Your task to perform on an android device: What's on the menu at Domino's? Image 0: 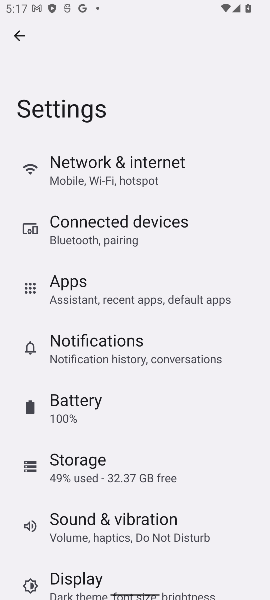
Step 0: press home button
Your task to perform on an android device: What's on the menu at Domino's? Image 1: 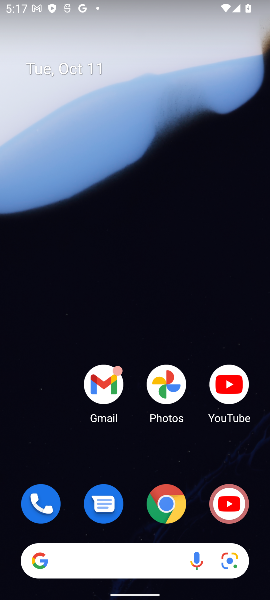
Step 1: click (101, 569)
Your task to perform on an android device: What's on the menu at Domino's? Image 2: 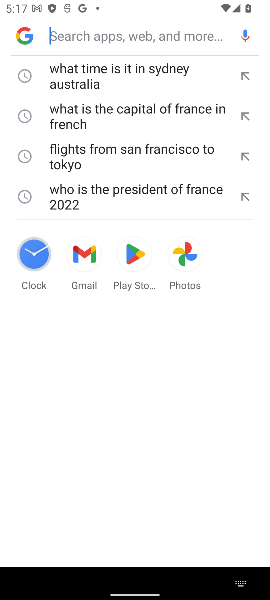
Step 2: click (68, 32)
Your task to perform on an android device: What's on the menu at Domino's? Image 3: 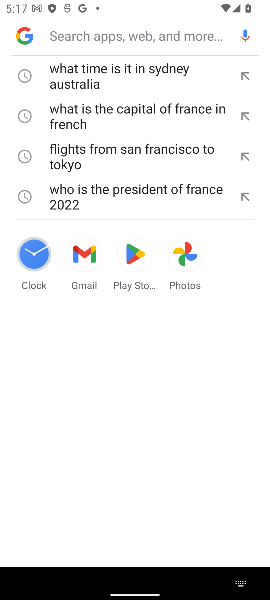
Step 3: type "What's on the menu at Domino's?"
Your task to perform on an android device: What's on the menu at Domino's? Image 4: 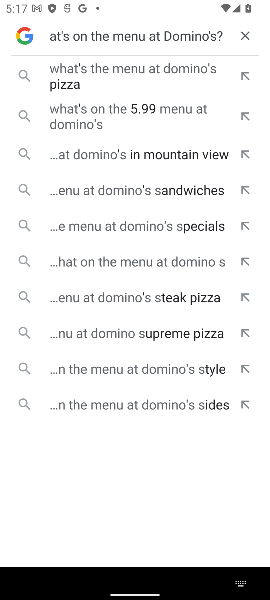
Step 4: click (132, 67)
Your task to perform on an android device: What's on the menu at Domino's? Image 5: 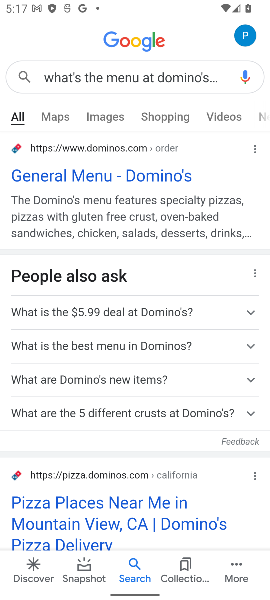
Step 5: click (90, 175)
Your task to perform on an android device: What's on the menu at Domino's? Image 6: 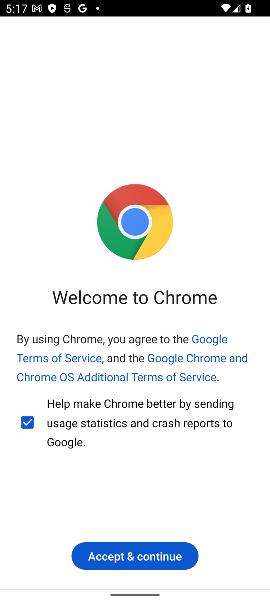
Step 6: click (124, 562)
Your task to perform on an android device: What's on the menu at Domino's? Image 7: 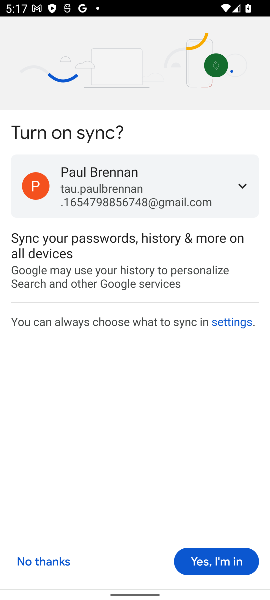
Step 7: click (208, 551)
Your task to perform on an android device: What's on the menu at Domino's? Image 8: 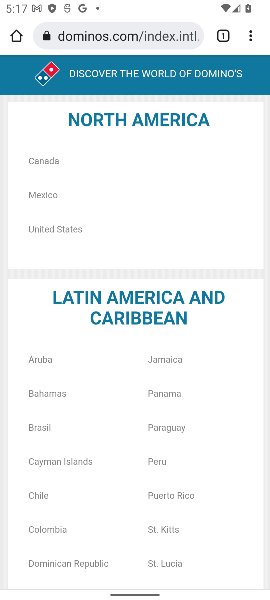
Step 8: task complete